Your task to perform on an android device: see tabs open on other devices in the chrome app Image 0: 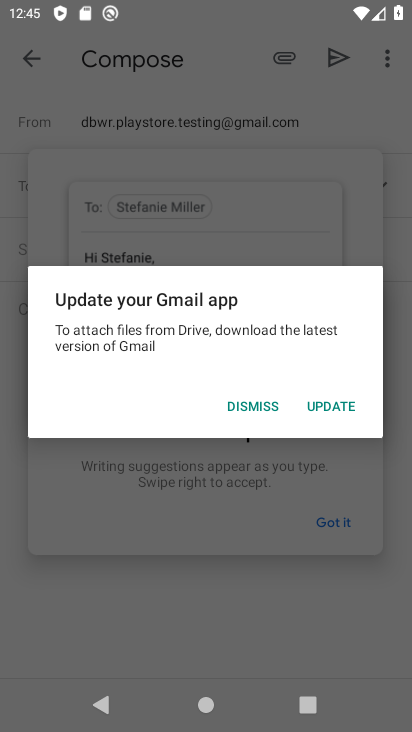
Step 0: press home button
Your task to perform on an android device: see tabs open on other devices in the chrome app Image 1: 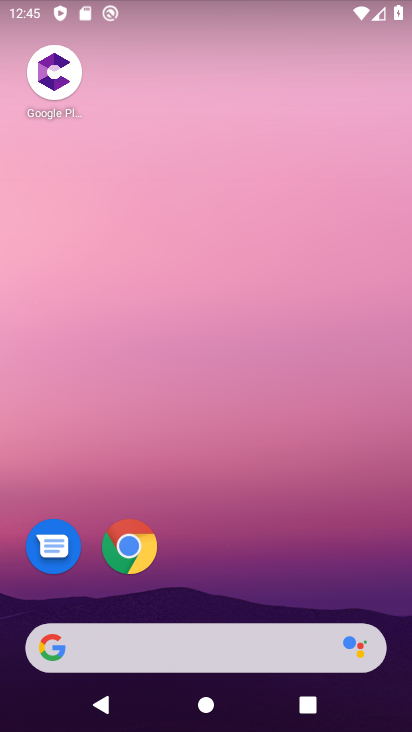
Step 1: click (128, 548)
Your task to perform on an android device: see tabs open on other devices in the chrome app Image 2: 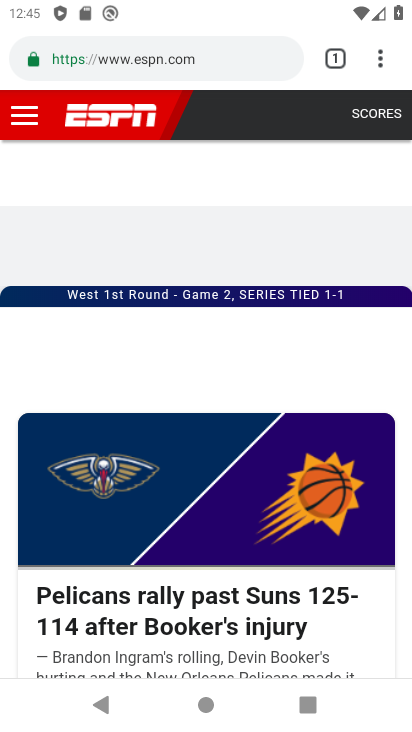
Step 2: click (381, 65)
Your task to perform on an android device: see tabs open on other devices in the chrome app Image 3: 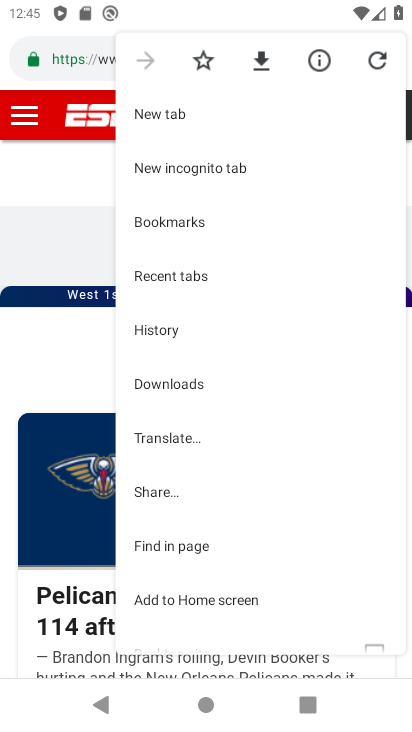
Step 3: click (172, 275)
Your task to perform on an android device: see tabs open on other devices in the chrome app Image 4: 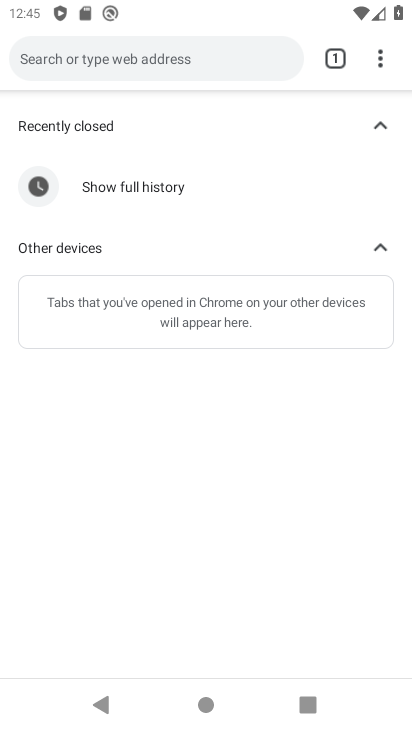
Step 4: task complete